Your task to perform on an android device: visit the assistant section in the google photos Image 0: 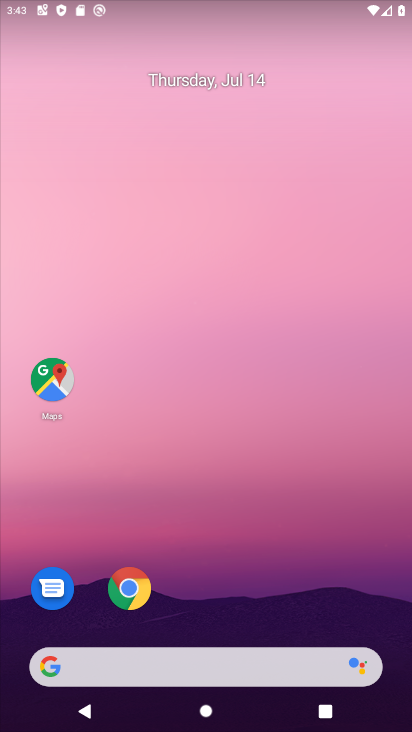
Step 0: drag from (307, 584) to (298, 109)
Your task to perform on an android device: visit the assistant section in the google photos Image 1: 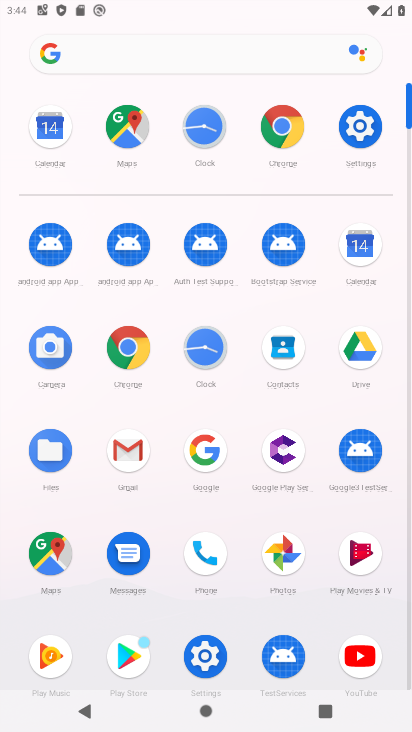
Step 1: click (283, 544)
Your task to perform on an android device: visit the assistant section in the google photos Image 2: 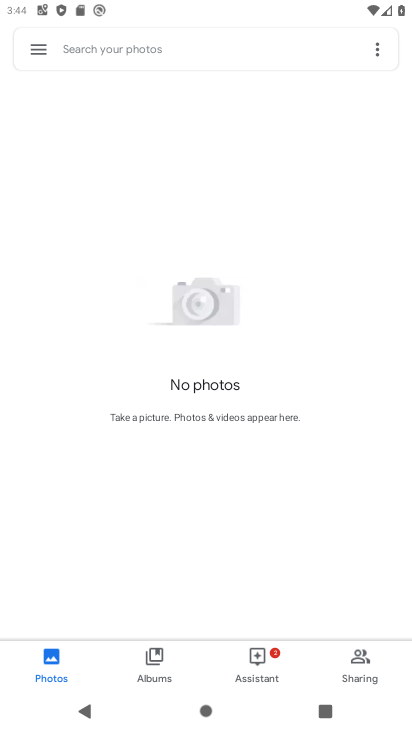
Step 2: click (268, 653)
Your task to perform on an android device: visit the assistant section in the google photos Image 3: 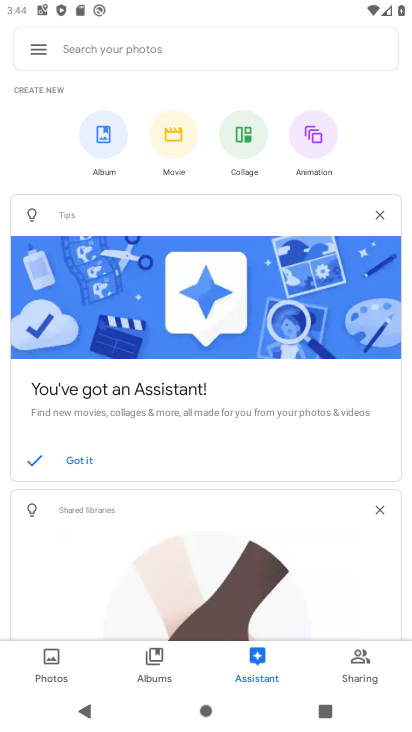
Step 3: task complete